Your task to perform on an android device: View the shopping cart on costco.com. Add acer nitro to the cart on costco.com, then select checkout. Image 0: 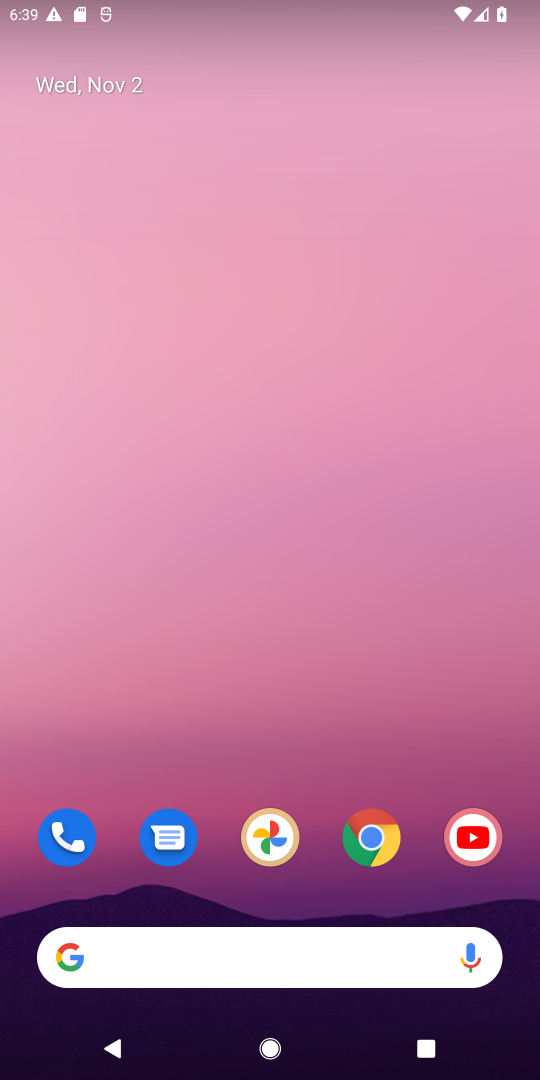
Step 0: click (378, 850)
Your task to perform on an android device: View the shopping cart on costco.com. Add acer nitro to the cart on costco.com, then select checkout. Image 1: 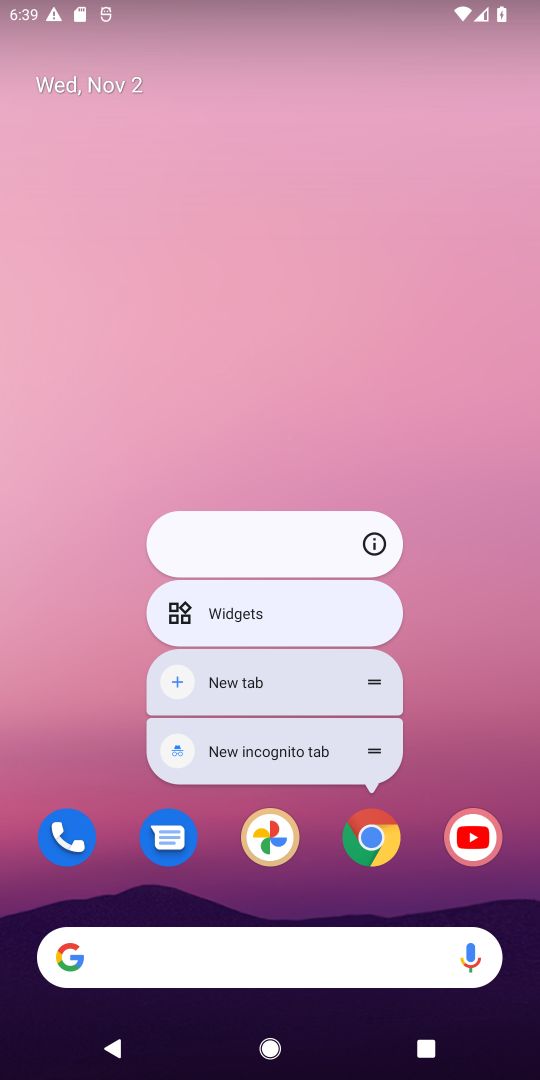
Step 1: click (235, 676)
Your task to perform on an android device: View the shopping cart on costco.com. Add acer nitro to the cart on costco.com, then select checkout. Image 2: 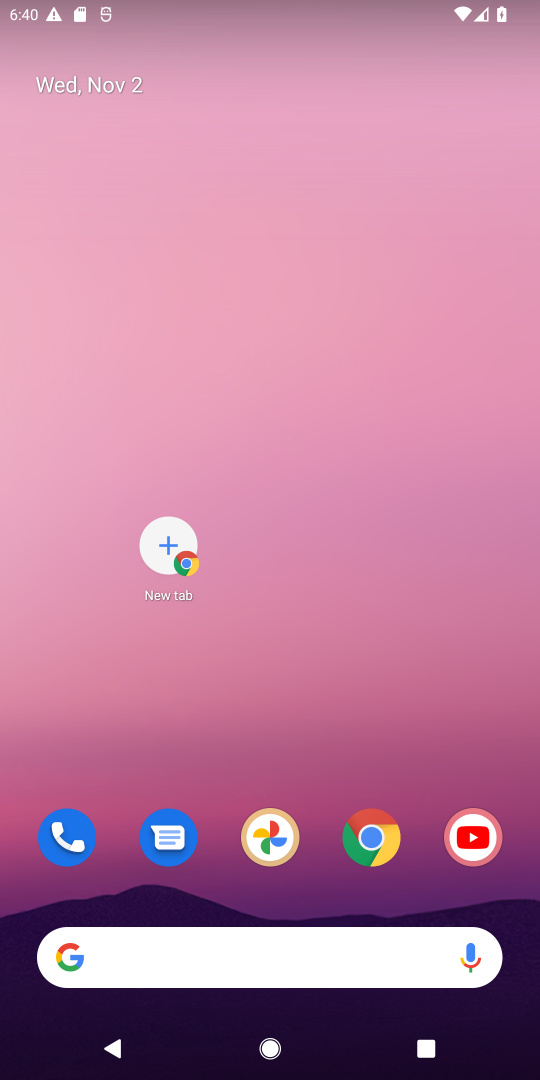
Step 2: click (172, 590)
Your task to perform on an android device: View the shopping cart on costco.com. Add acer nitro to the cart on costco.com, then select checkout. Image 3: 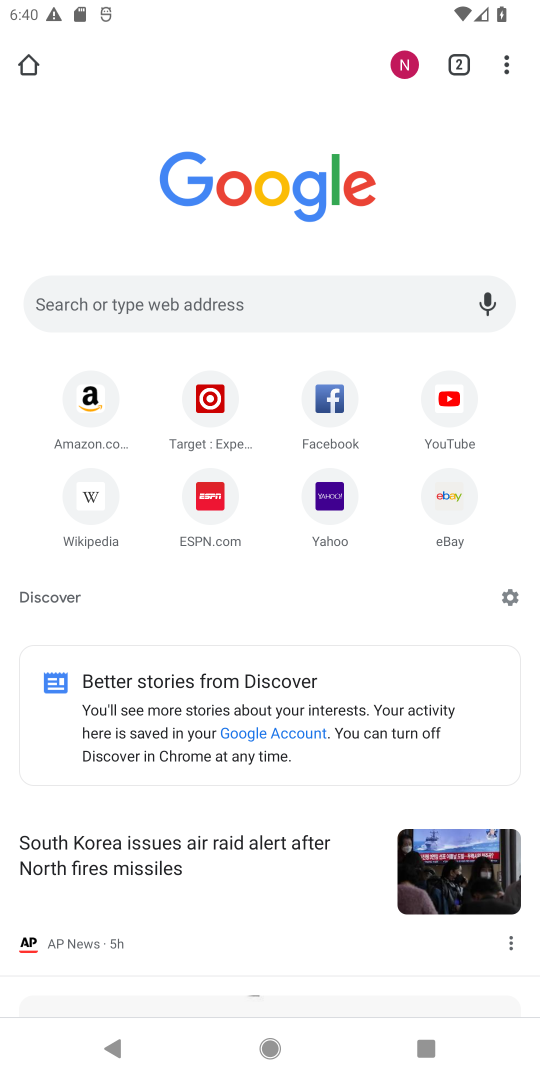
Step 3: click (132, 292)
Your task to perform on an android device: View the shopping cart on costco.com. Add acer nitro to the cart on costco.com, then select checkout. Image 4: 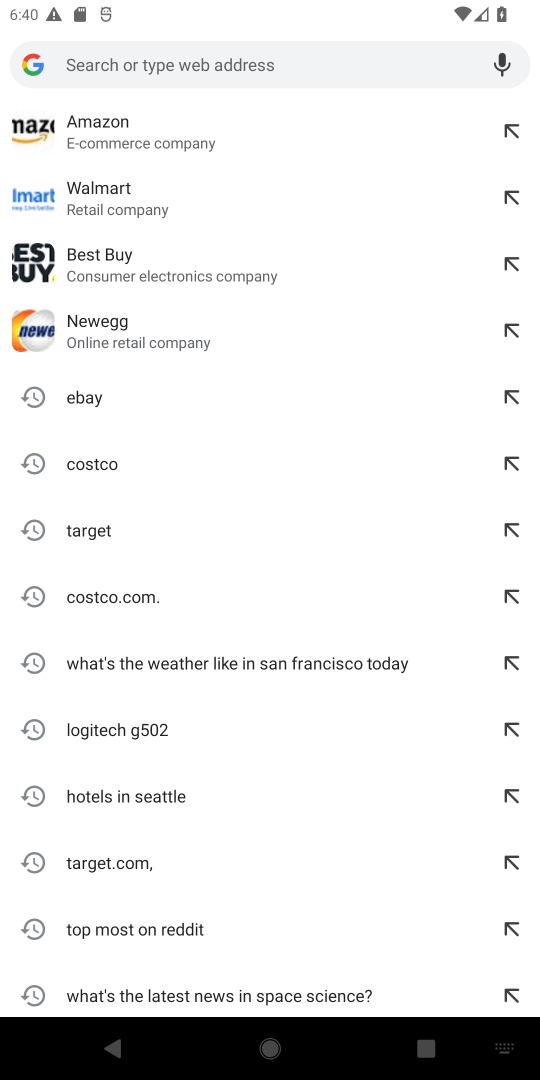
Step 4: type "costco.com"
Your task to perform on an android device: View the shopping cart on costco.com. Add acer nitro to the cart on costco.com, then select checkout. Image 5: 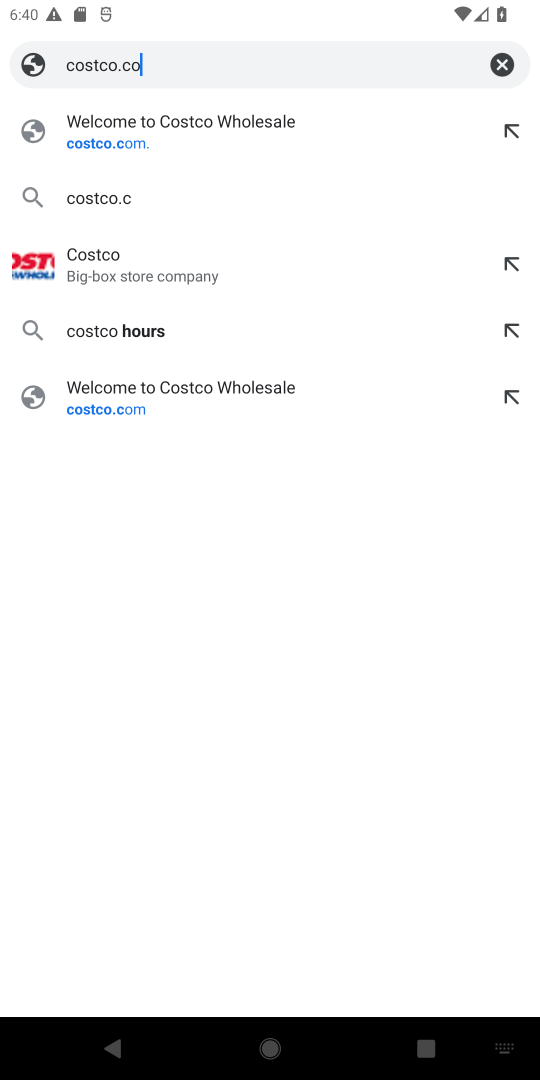
Step 5: type ""
Your task to perform on an android device: View the shopping cart on costco.com. Add acer nitro to the cart on costco.com, then select checkout. Image 6: 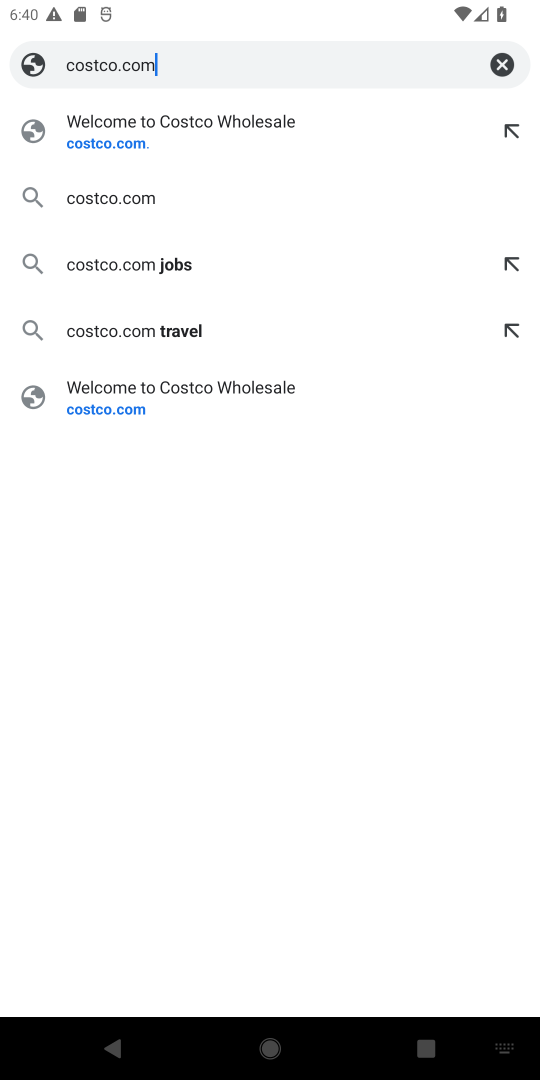
Step 6: click (149, 142)
Your task to perform on an android device: View the shopping cart on costco.com. Add acer nitro to the cart on costco.com, then select checkout. Image 7: 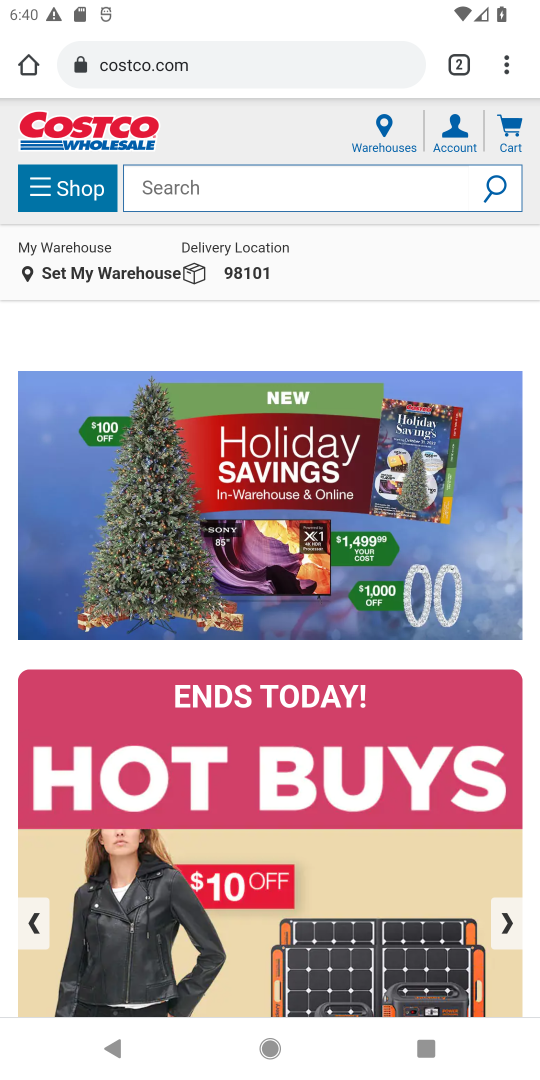
Step 7: click (234, 195)
Your task to perform on an android device: View the shopping cart on costco.com. Add acer nitro to the cart on costco.com, then select checkout. Image 8: 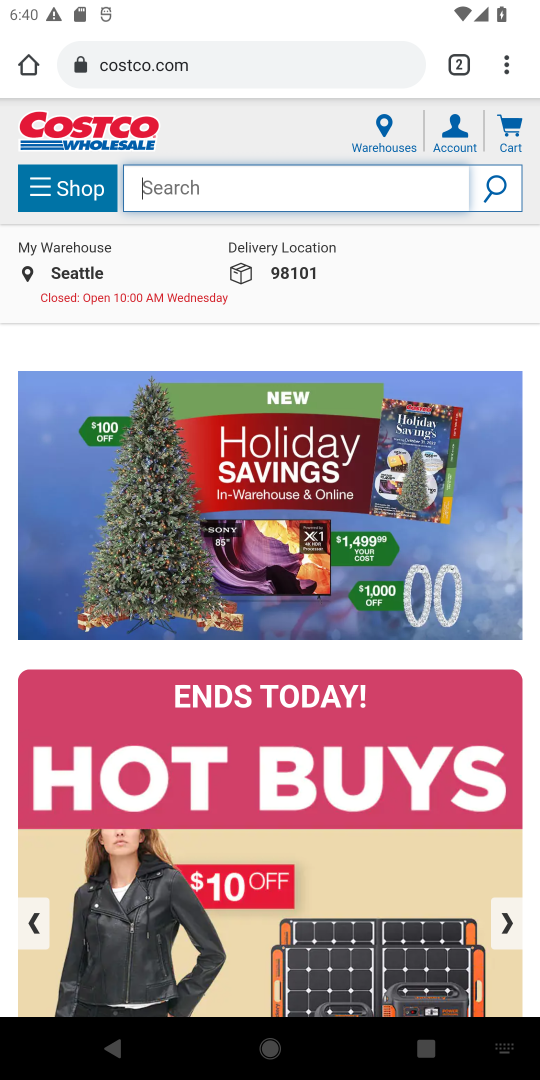
Step 8: type "acer nitro"
Your task to perform on an android device: View the shopping cart on costco.com. Add acer nitro to the cart on costco.com, then select checkout. Image 9: 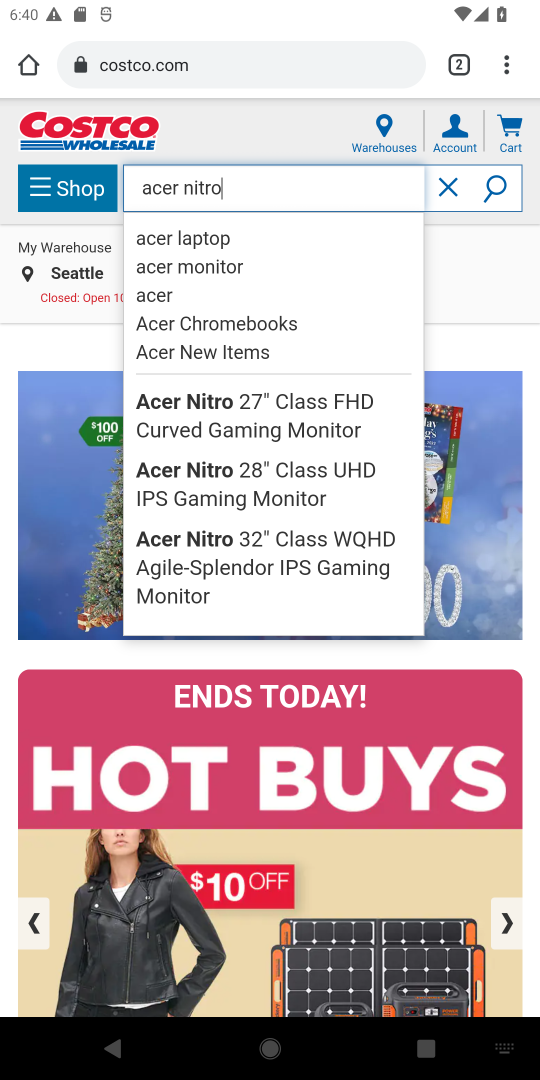
Step 9: click (289, 409)
Your task to perform on an android device: View the shopping cart on costco.com. Add acer nitro to the cart on costco.com, then select checkout. Image 10: 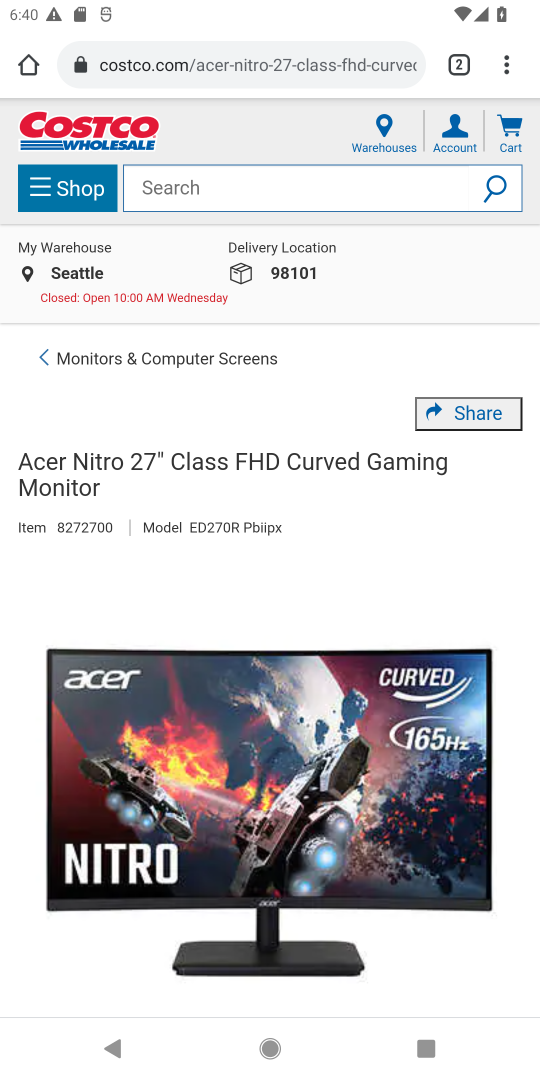
Step 10: drag from (266, 781) to (271, 392)
Your task to perform on an android device: View the shopping cart on costco.com. Add acer nitro to the cart on costco.com, then select checkout. Image 11: 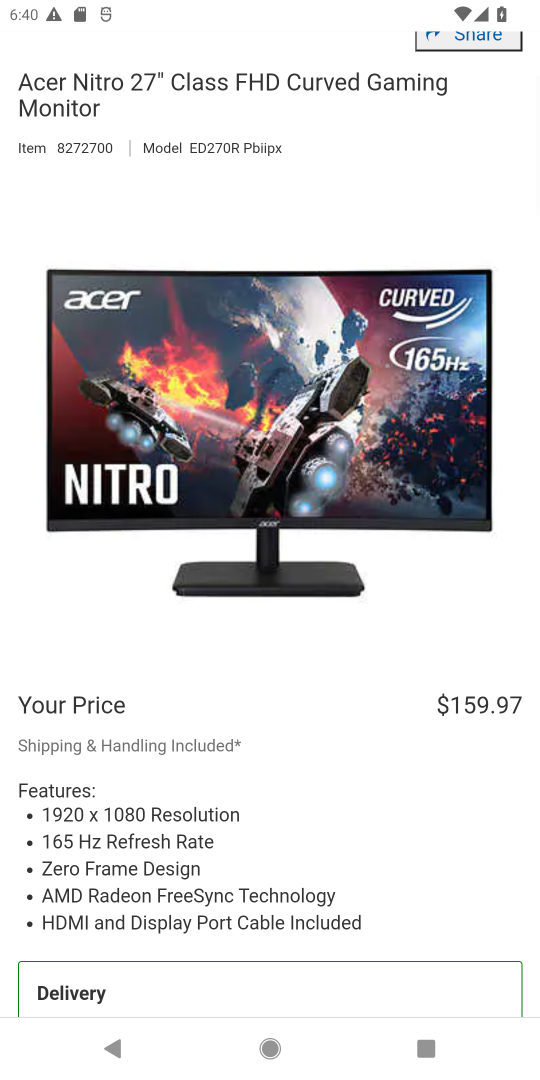
Step 11: drag from (255, 768) to (251, 465)
Your task to perform on an android device: View the shopping cart on costco.com. Add acer nitro to the cart on costco.com, then select checkout. Image 12: 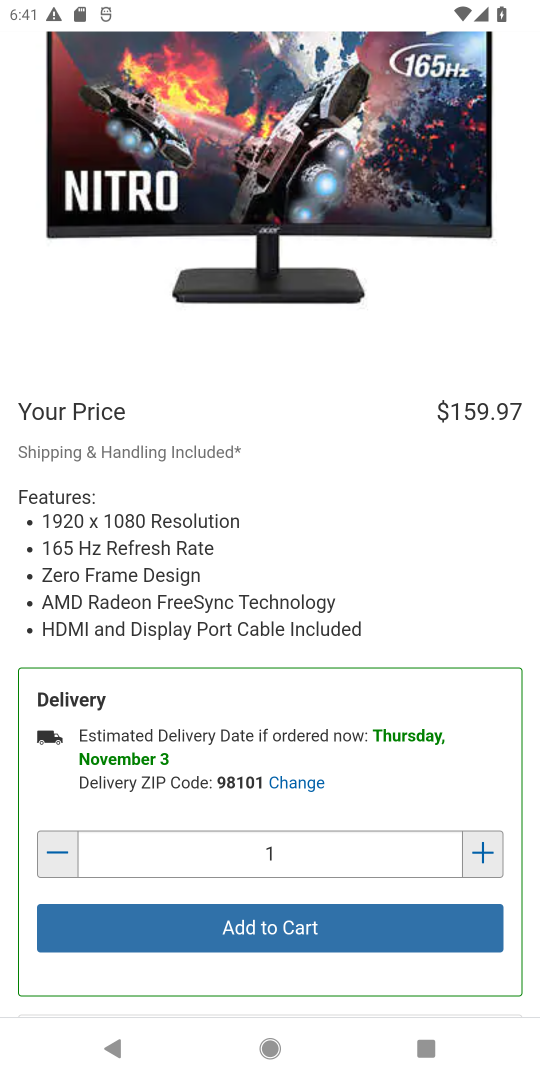
Step 12: drag from (276, 734) to (299, 359)
Your task to perform on an android device: View the shopping cart on costco.com. Add acer nitro to the cart on costco.com, then select checkout. Image 13: 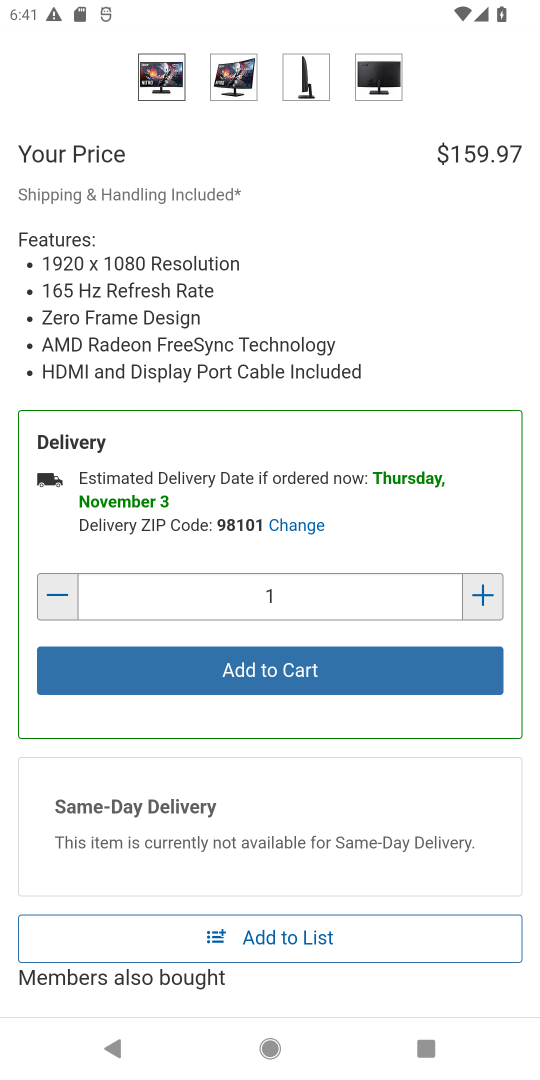
Step 13: drag from (301, 784) to (317, 517)
Your task to perform on an android device: View the shopping cart on costco.com. Add acer nitro to the cart on costco.com, then select checkout. Image 14: 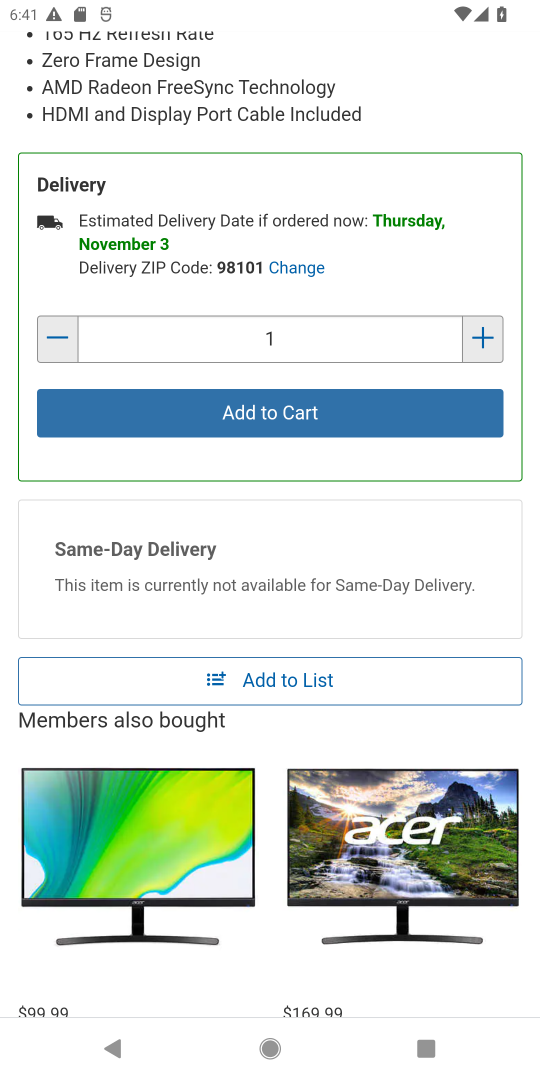
Step 14: click (249, 612)
Your task to perform on an android device: View the shopping cart on costco.com. Add acer nitro to the cart on costco.com, then select checkout. Image 15: 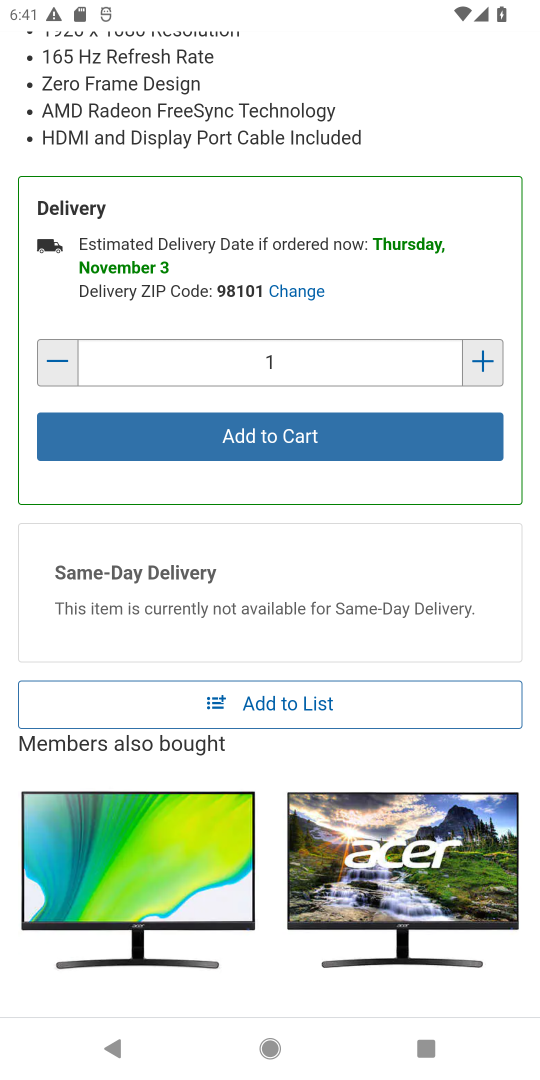
Step 15: click (316, 433)
Your task to perform on an android device: View the shopping cart on costco.com. Add acer nitro to the cart on costco.com, then select checkout. Image 16: 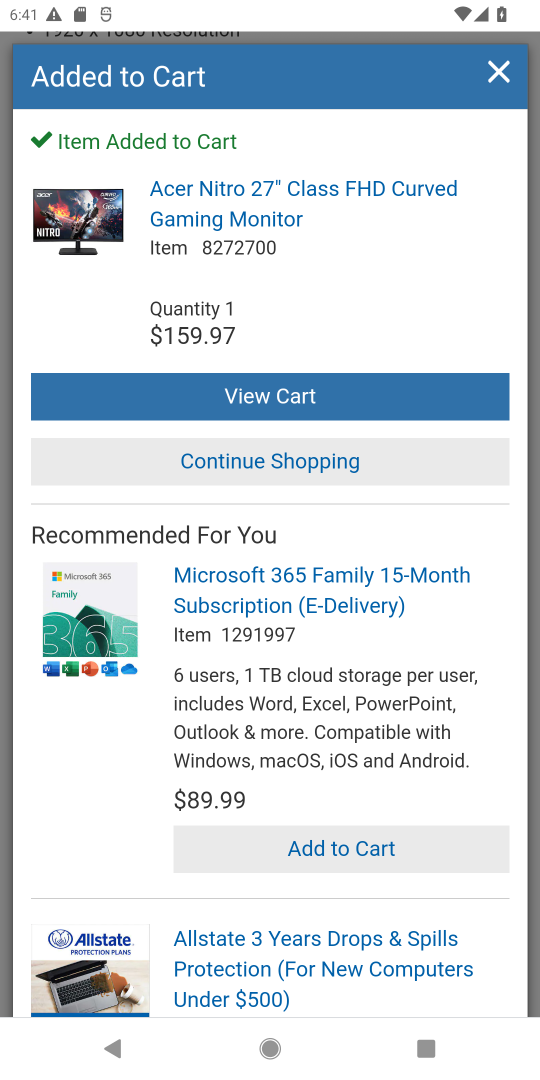
Step 16: click (313, 396)
Your task to perform on an android device: View the shopping cart on costco.com. Add acer nitro to the cart on costco.com, then select checkout. Image 17: 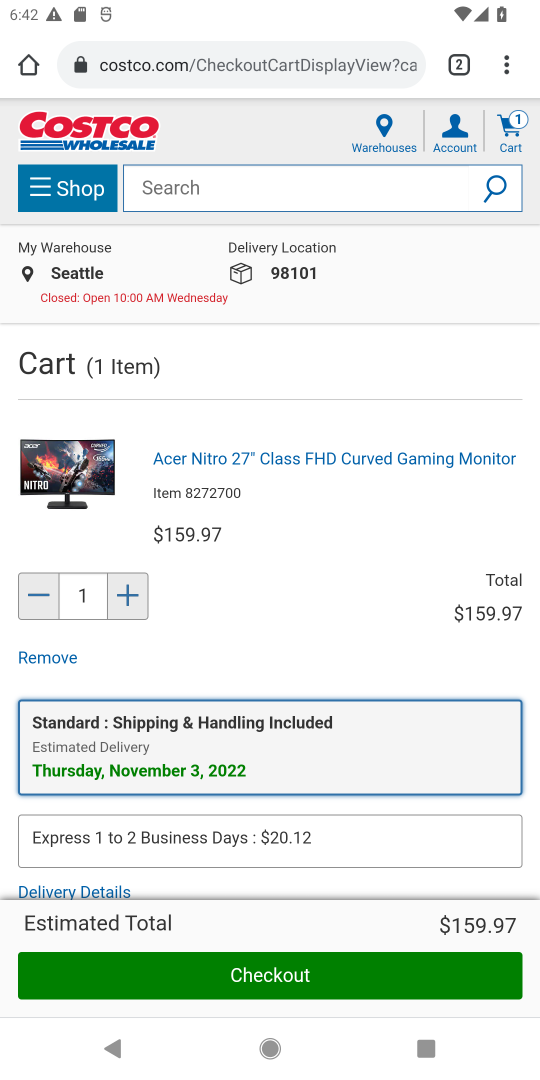
Step 17: click (297, 974)
Your task to perform on an android device: View the shopping cart on costco.com. Add acer nitro to the cart on costco.com, then select checkout. Image 18: 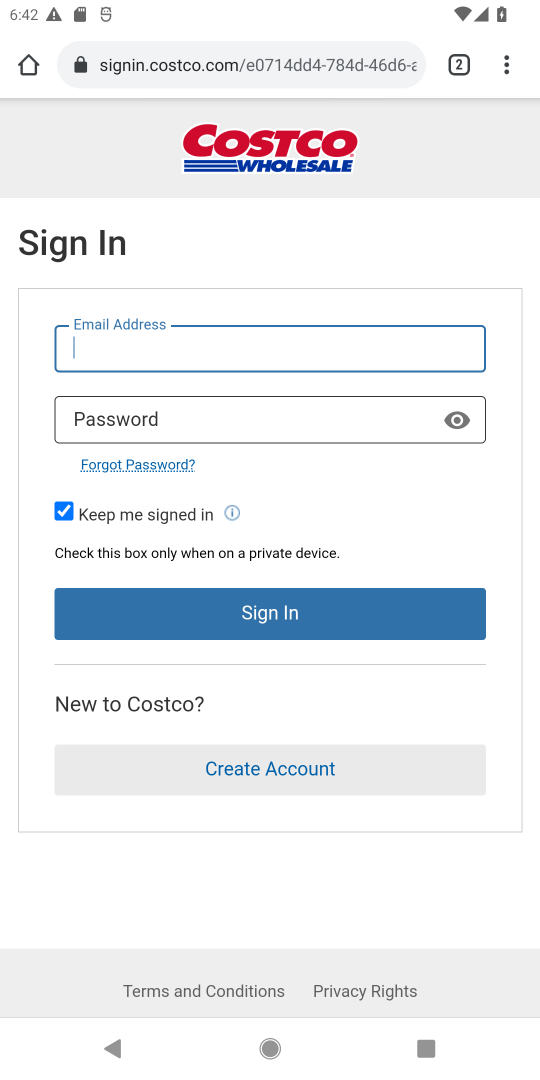
Step 18: task complete